Your task to perform on an android device: stop showing notifications on the lock screen Image 0: 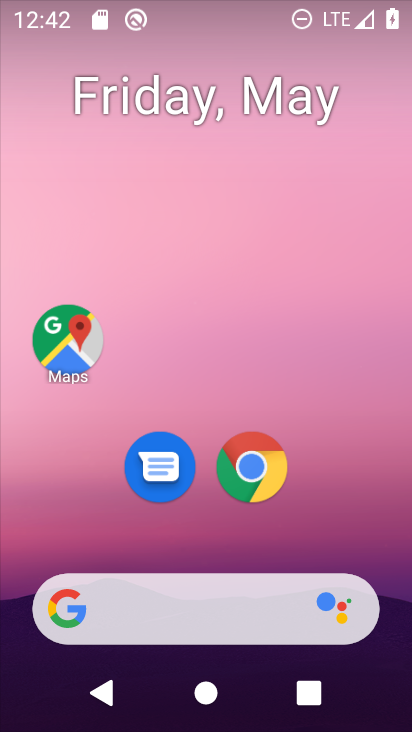
Step 0: drag from (257, 520) to (286, 111)
Your task to perform on an android device: stop showing notifications on the lock screen Image 1: 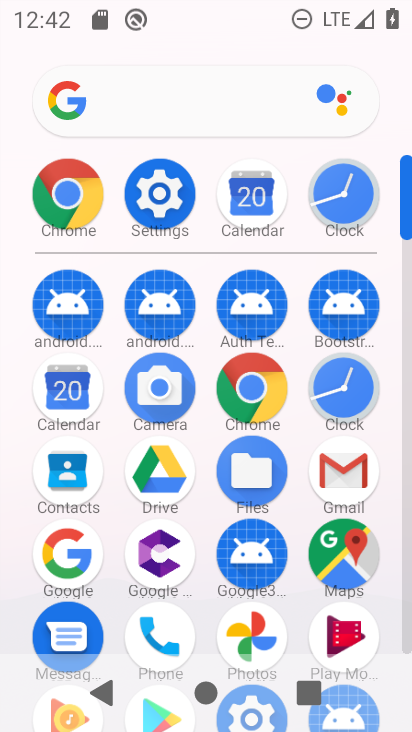
Step 1: click (169, 195)
Your task to perform on an android device: stop showing notifications on the lock screen Image 2: 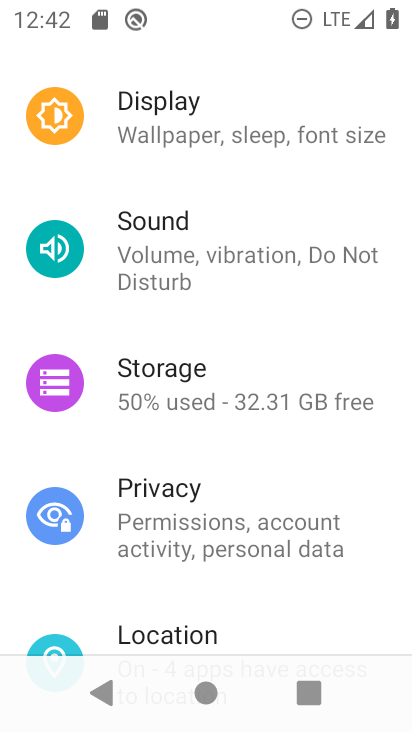
Step 2: drag from (241, 191) to (243, 617)
Your task to perform on an android device: stop showing notifications on the lock screen Image 3: 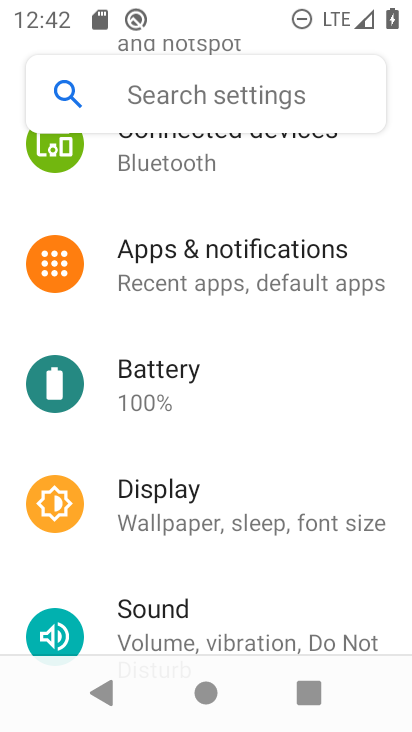
Step 3: click (251, 280)
Your task to perform on an android device: stop showing notifications on the lock screen Image 4: 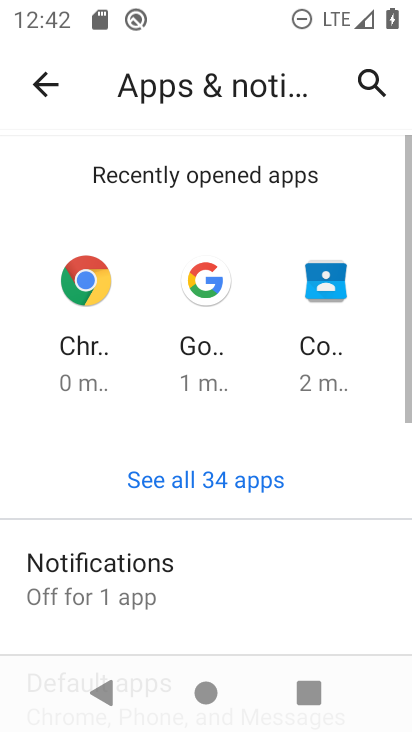
Step 4: drag from (243, 625) to (249, 303)
Your task to perform on an android device: stop showing notifications on the lock screen Image 5: 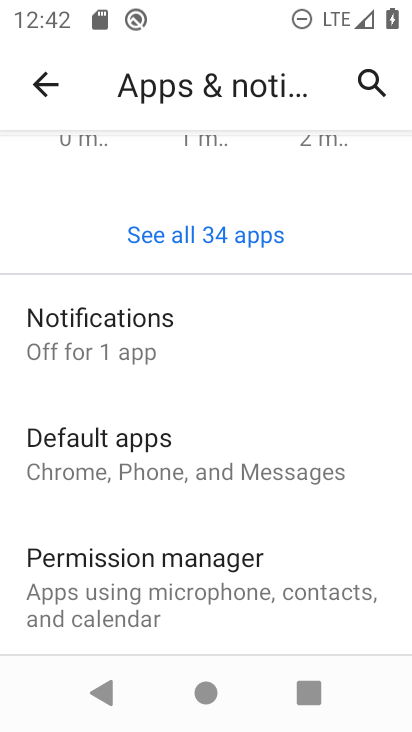
Step 5: click (186, 336)
Your task to perform on an android device: stop showing notifications on the lock screen Image 6: 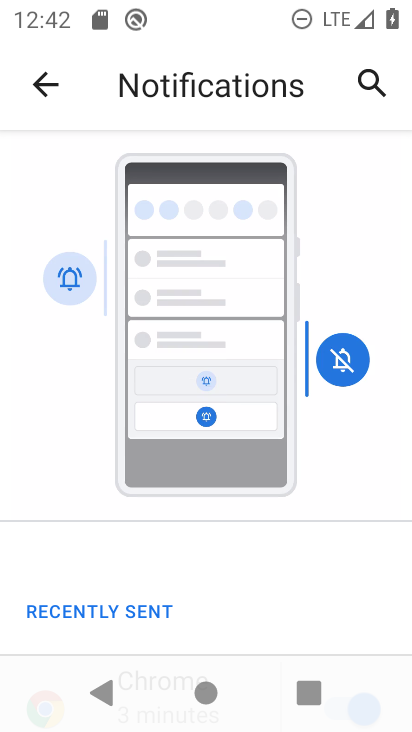
Step 6: drag from (233, 627) to (286, 71)
Your task to perform on an android device: stop showing notifications on the lock screen Image 7: 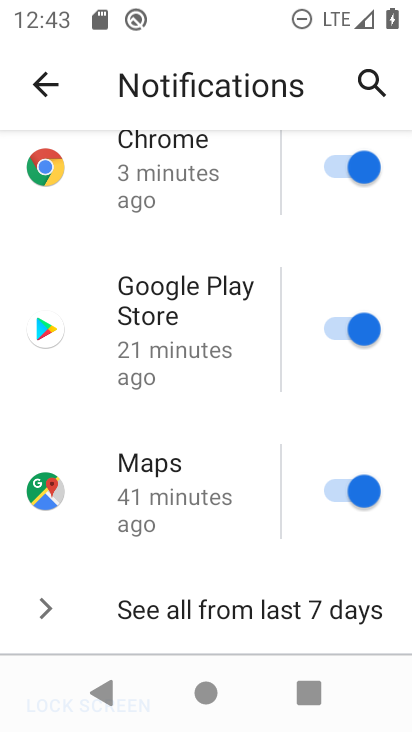
Step 7: drag from (236, 595) to (277, 167)
Your task to perform on an android device: stop showing notifications on the lock screen Image 8: 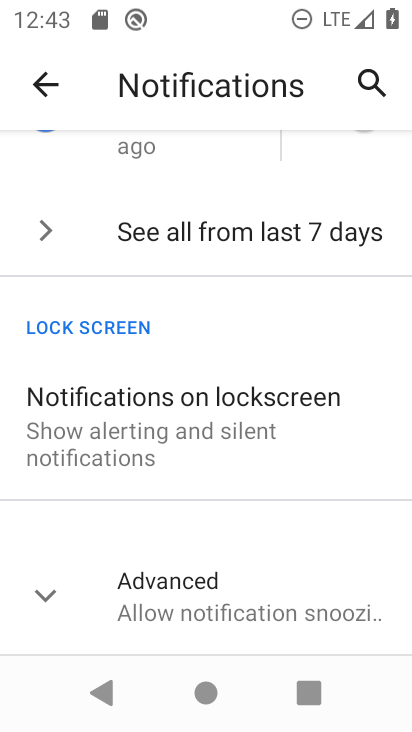
Step 8: click (207, 438)
Your task to perform on an android device: stop showing notifications on the lock screen Image 9: 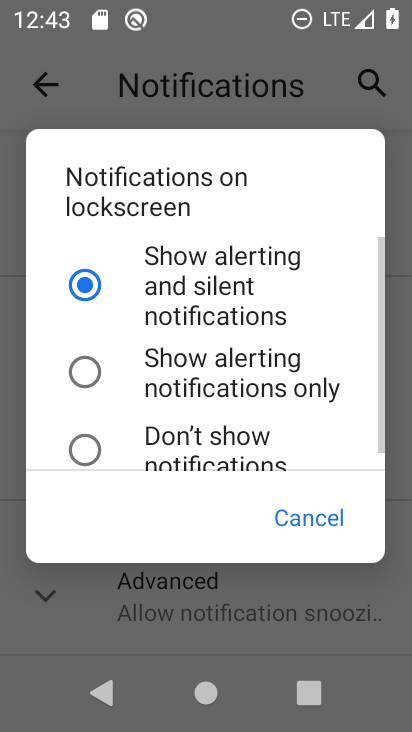
Step 9: click (77, 451)
Your task to perform on an android device: stop showing notifications on the lock screen Image 10: 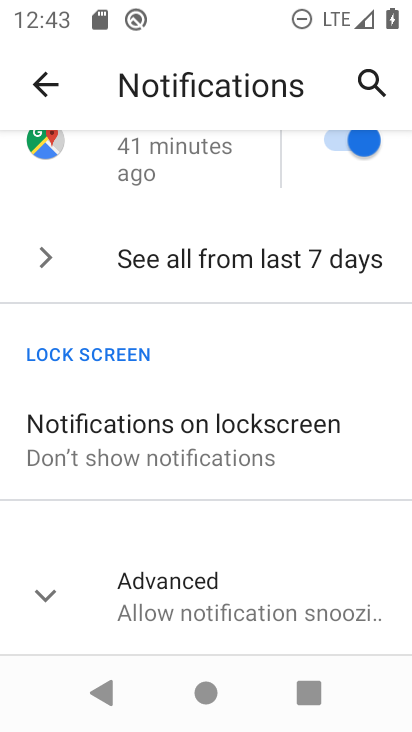
Step 10: task complete